Your task to perform on an android device: toggle notifications settings in the gmail app Image 0: 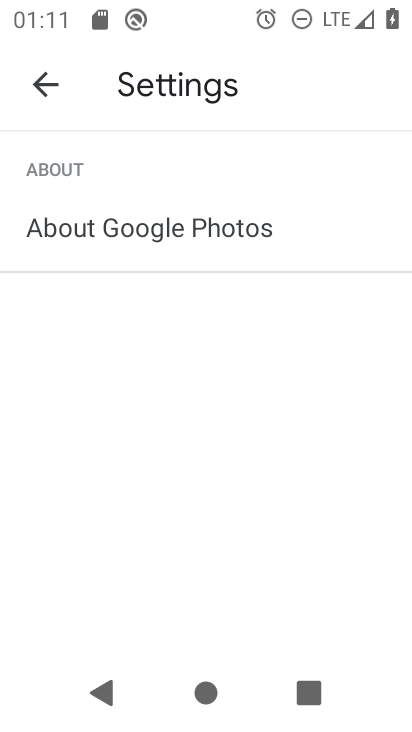
Step 0: press home button
Your task to perform on an android device: toggle notifications settings in the gmail app Image 1: 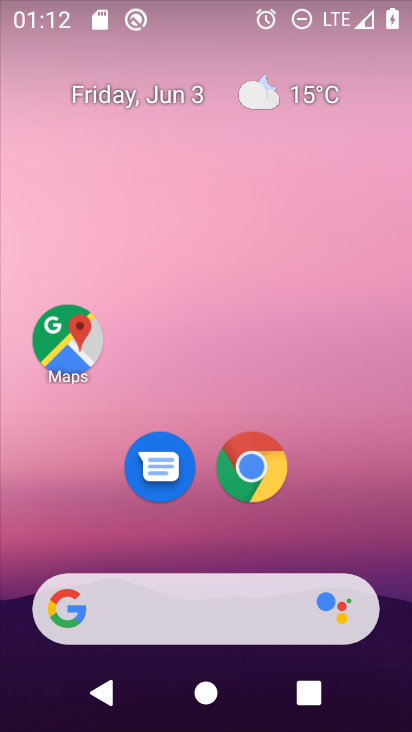
Step 1: drag from (393, 612) to (354, 130)
Your task to perform on an android device: toggle notifications settings in the gmail app Image 2: 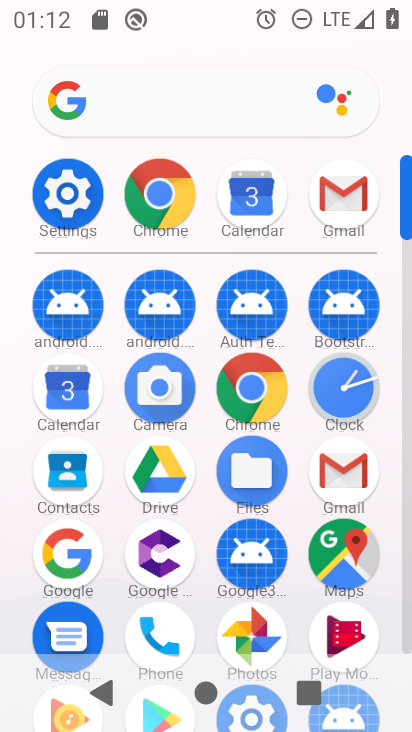
Step 2: click (406, 625)
Your task to perform on an android device: toggle notifications settings in the gmail app Image 3: 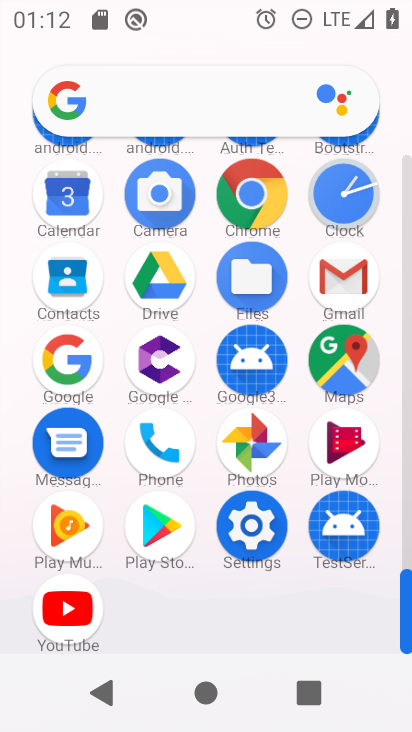
Step 3: click (342, 277)
Your task to perform on an android device: toggle notifications settings in the gmail app Image 4: 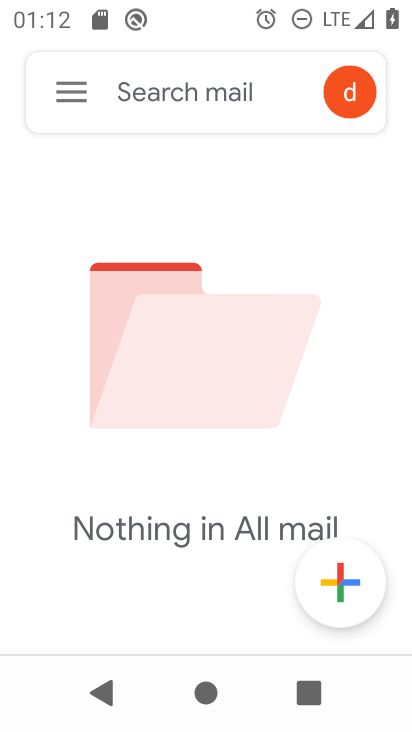
Step 4: click (68, 92)
Your task to perform on an android device: toggle notifications settings in the gmail app Image 5: 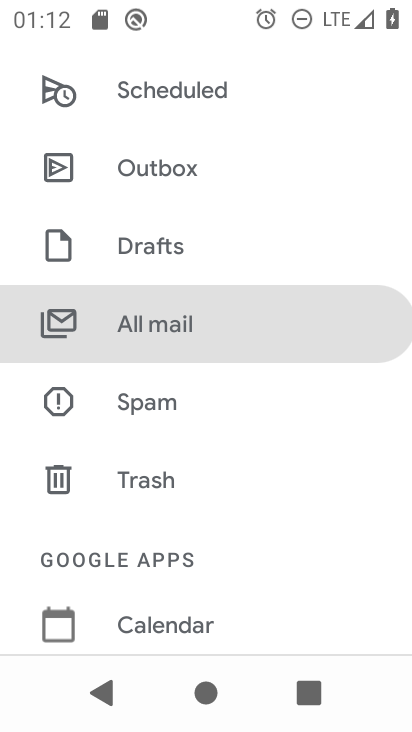
Step 5: drag from (271, 580) to (276, 184)
Your task to perform on an android device: toggle notifications settings in the gmail app Image 6: 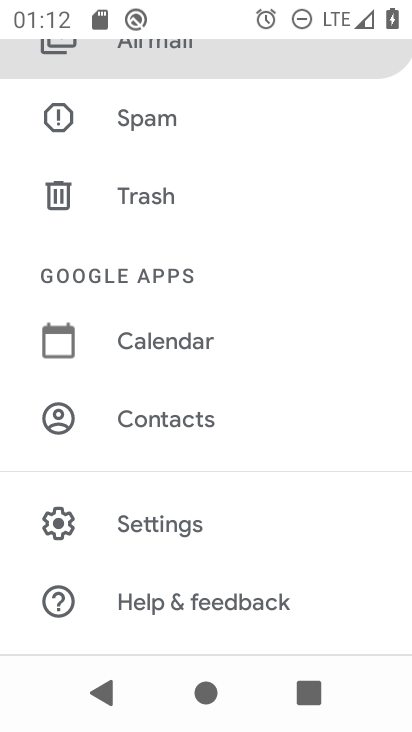
Step 6: click (170, 524)
Your task to perform on an android device: toggle notifications settings in the gmail app Image 7: 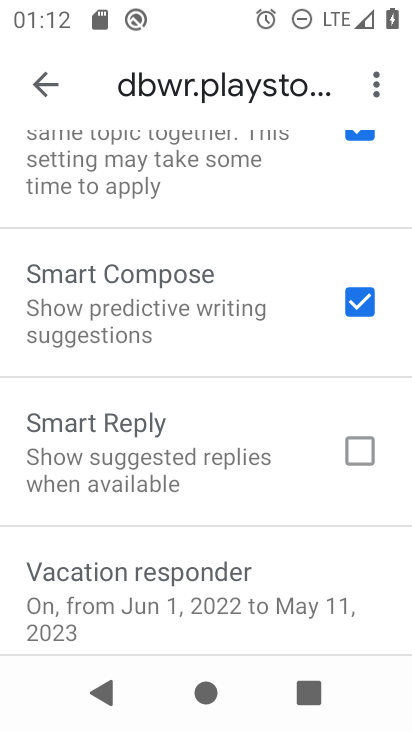
Step 7: drag from (277, 186) to (267, 475)
Your task to perform on an android device: toggle notifications settings in the gmail app Image 8: 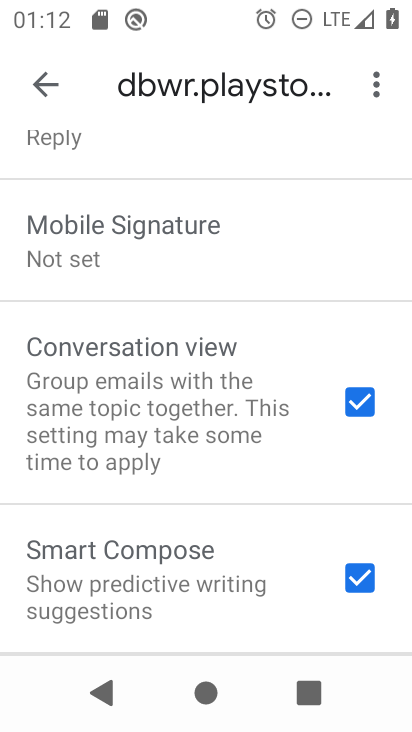
Step 8: drag from (270, 262) to (281, 538)
Your task to perform on an android device: toggle notifications settings in the gmail app Image 9: 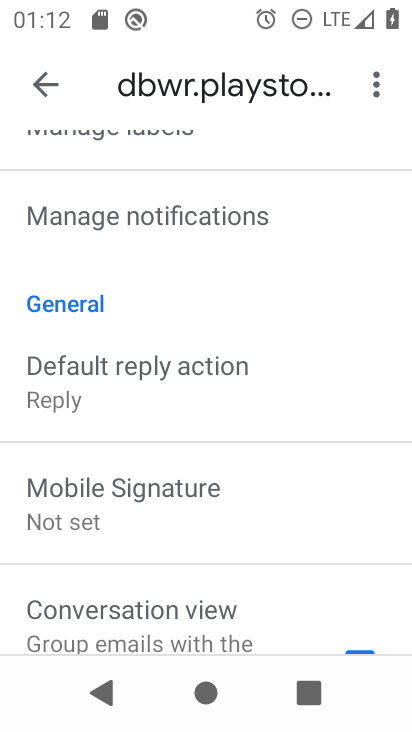
Step 9: drag from (280, 155) to (269, 407)
Your task to perform on an android device: toggle notifications settings in the gmail app Image 10: 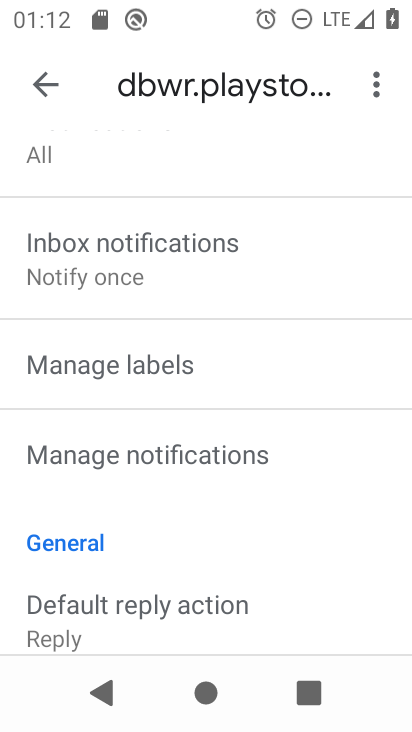
Step 10: click (122, 455)
Your task to perform on an android device: toggle notifications settings in the gmail app Image 11: 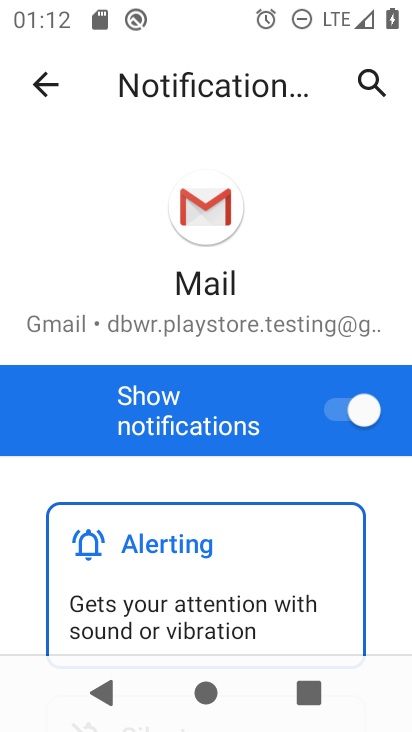
Step 11: click (328, 413)
Your task to perform on an android device: toggle notifications settings in the gmail app Image 12: 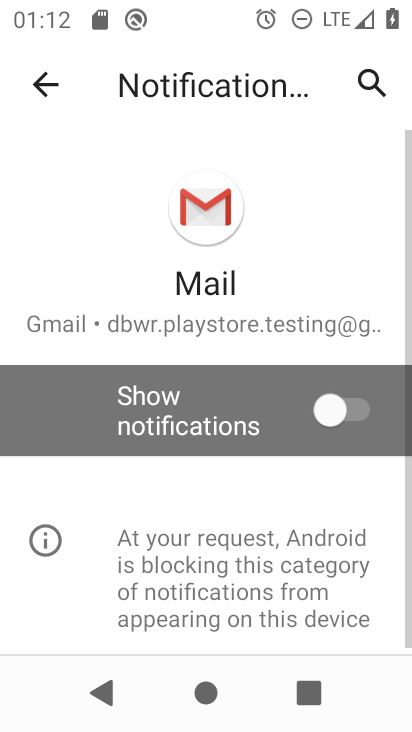
Step 12: task complete